Your task to perform on an android device: turn on priority inbox in the gmail app Image 0: 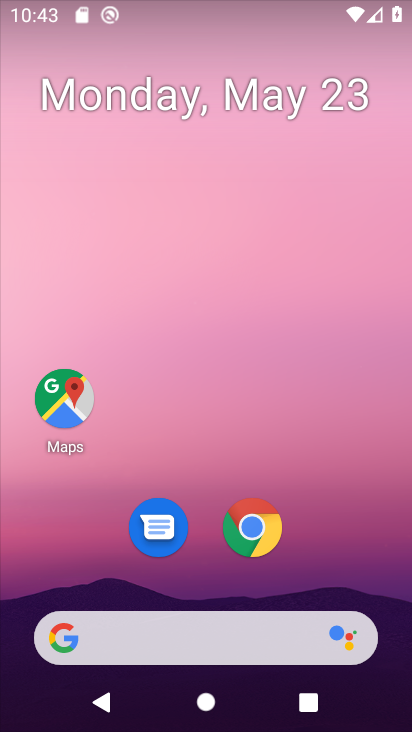
Step 0: drag from (204, 584) to (229, 67)
Your task to perform on an android device: turn on priority inbox in the gmail app Image 1: 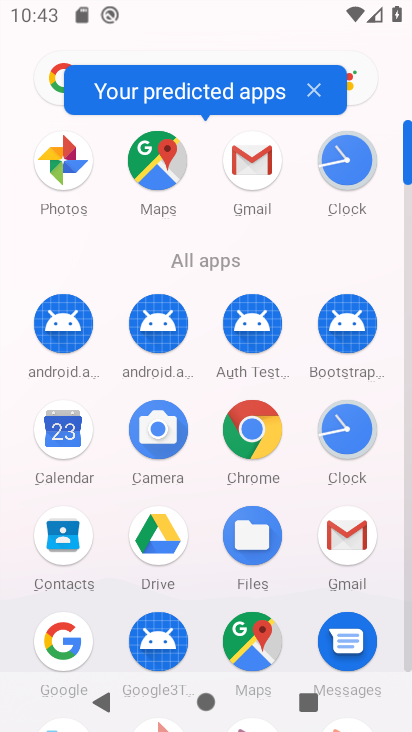
Step 1: click (338, 544)
Your task to perform on an android device: turn on priority inbox in the gmail app Image 2: 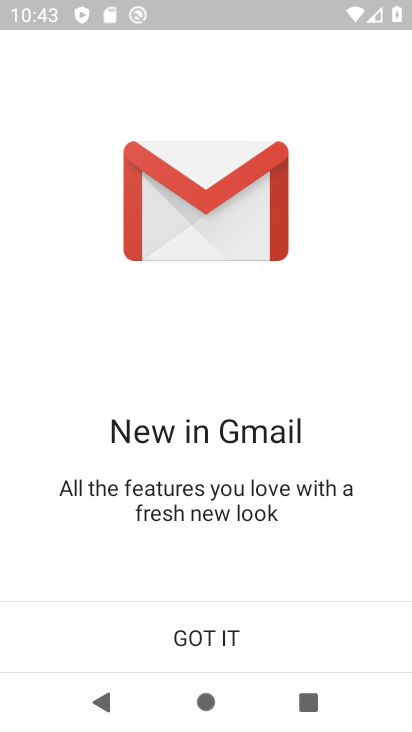
Step 2: click (232, 646)
Your task to perform on an android device: turn on priority inbox in the gmail app Image 3: 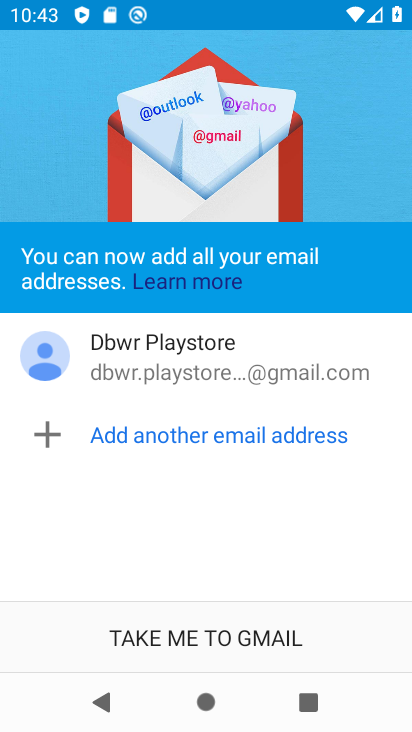
Step 3: click (232, 647)
Your task to perform on an android device: turn on priority inbox in the gmail app Image 4: 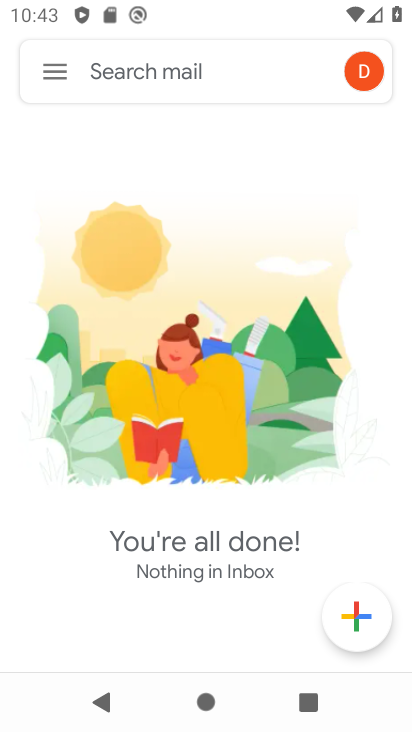
Step 4: click (62, 65)
Your task to perform on an android device: turn on priority inbox in the gmail app Image 5: 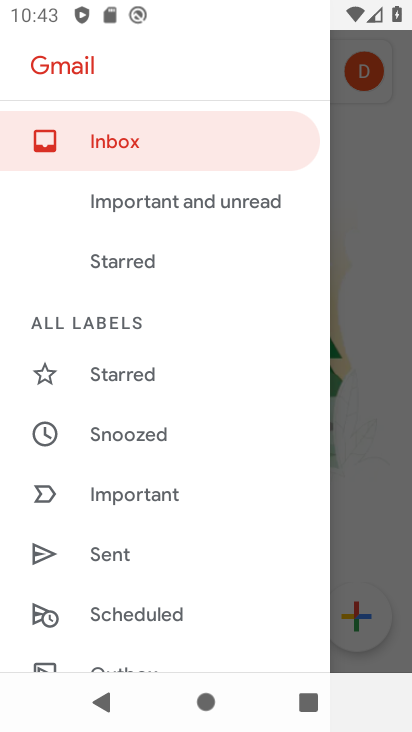
Step 5: drag from (146, 612) to (227, 67)
Your task to perform on an android device: turn on priority inbox in the gmail app Image 6: 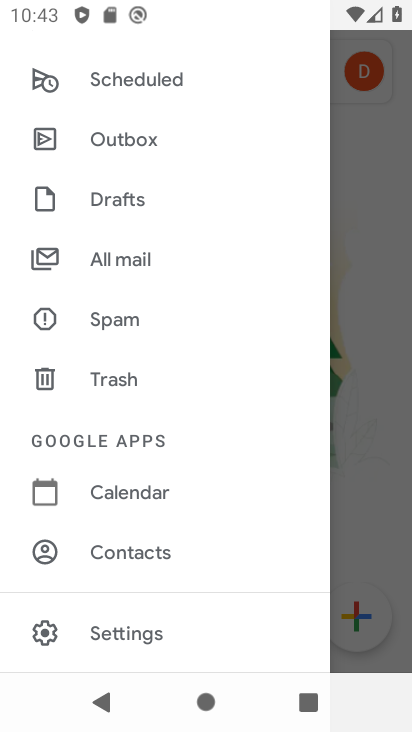
Step 6: click (120, 627)
Your task to perform on an android device: turn on priority inbox in the gmail app Image 7: 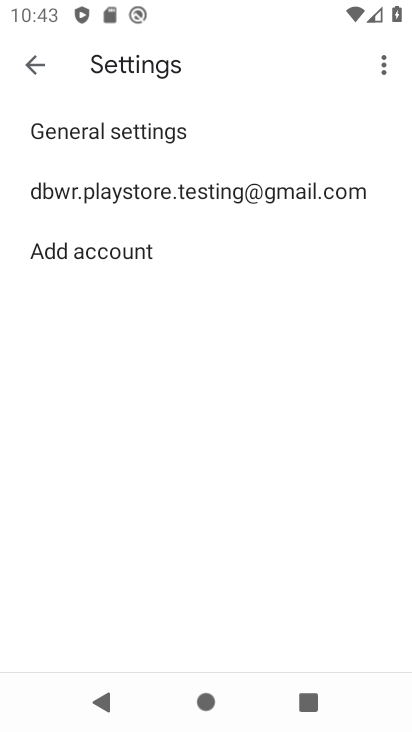
Step 7: click (108, 200)
Your task to perform on an android device: turn on priority inbox in the gmail app Image 8: 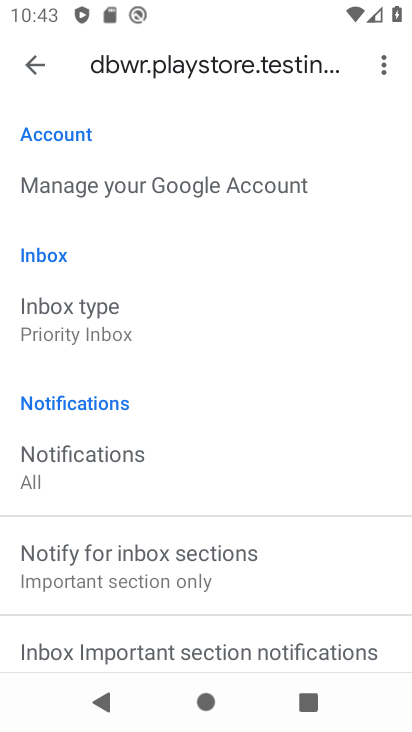
Step 8: click (91, 311)
Your task to perform on an android device: turn on priority inbox in the gmail app Image 9: 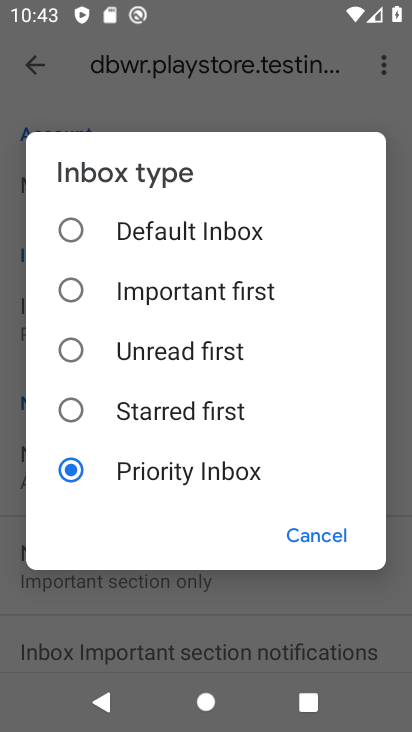
Step 9: task complete